Your task to perform on an android device: Go to Google Image 0: 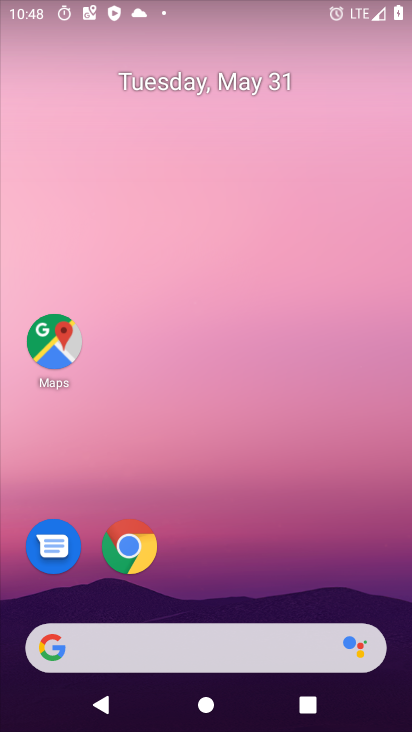
Step 0: click (122, 647)
Your task to perform on an android device: Go to Google Image 1: 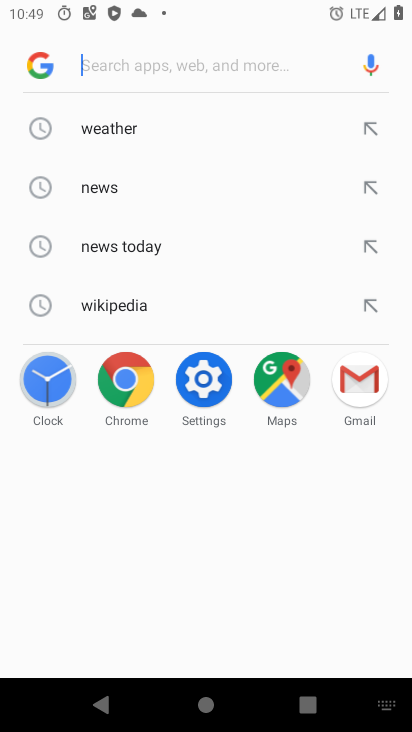
Step 1: task complete